Your task to perform on an android device: check the backup settings in the google photos Image 0: 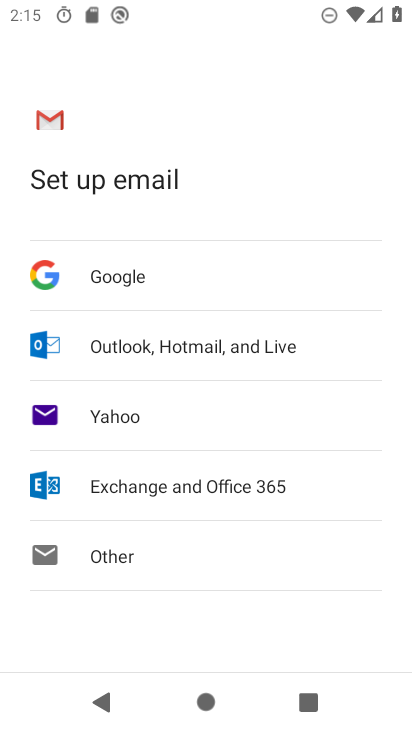
Step 0: press home button
Your task to perform on an android device: check the backup settings in the google photos Image 1: 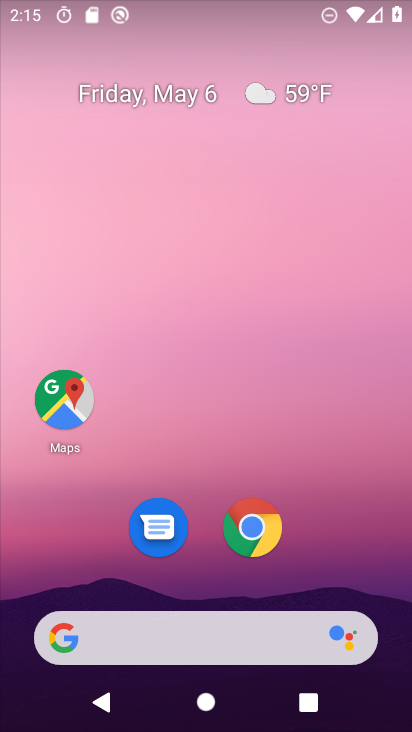
Step 1: drag from (312, 546) to (86, 131)
Your task to perform on an android device: check the backup settings in the google photos Image 2: 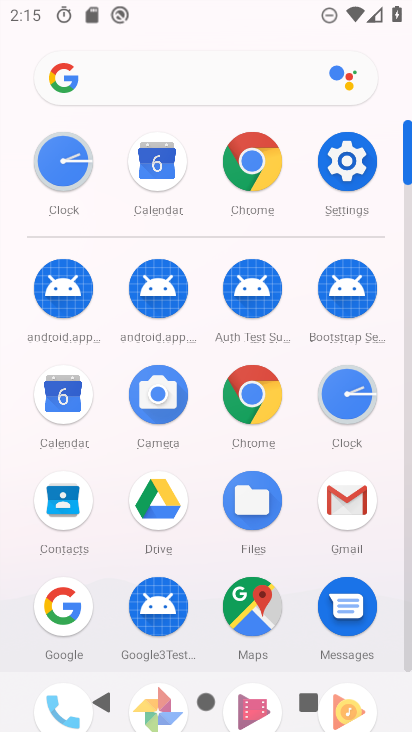
Step 2: drag from (210, 635) to (193, 272)
Your task to perform on an android device: check the backup settings in the google photos Image 3: 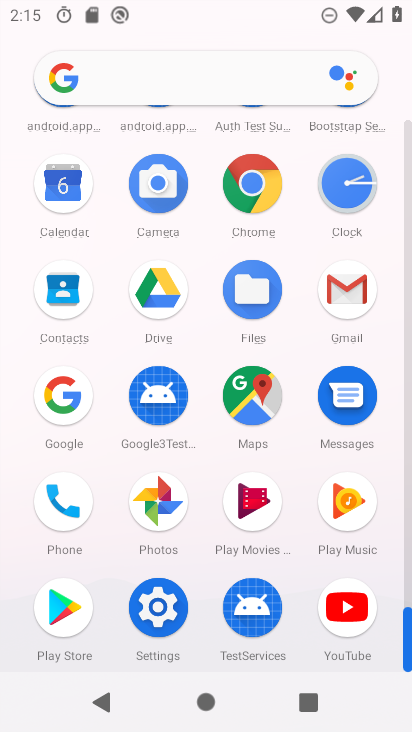
Step 3: click (157, 528)
Your task to perform on an android device: check the backup settings in the google photos Image 4: 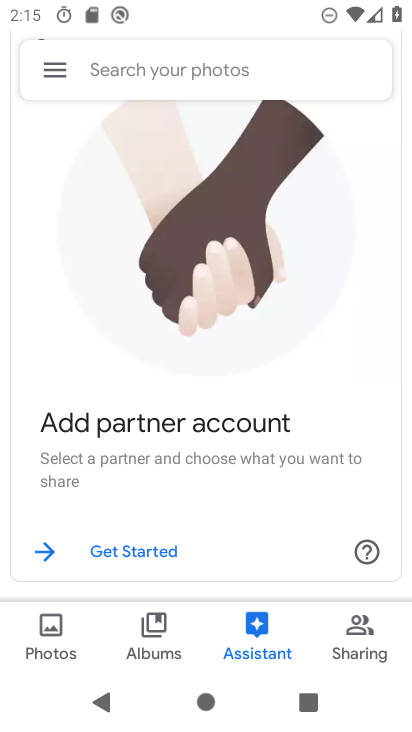
Step 4: click (49, 71)
Your task to perform on an android device: check the backup settings in the google photos Image 5: 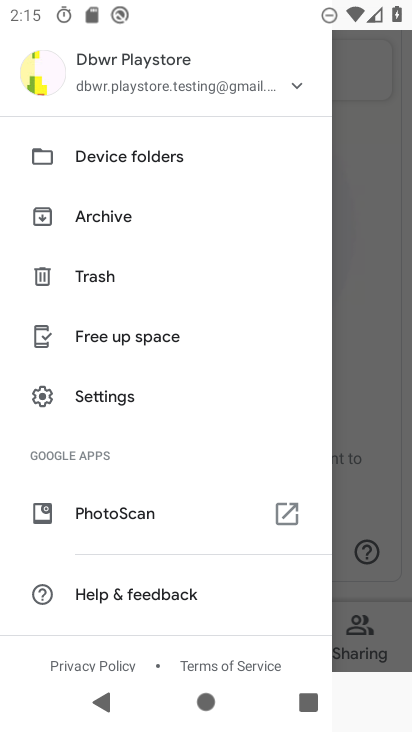
Step 5: click (92, 402)
Your task to perform on an android device: check the backup settings in the google photos Image 6: 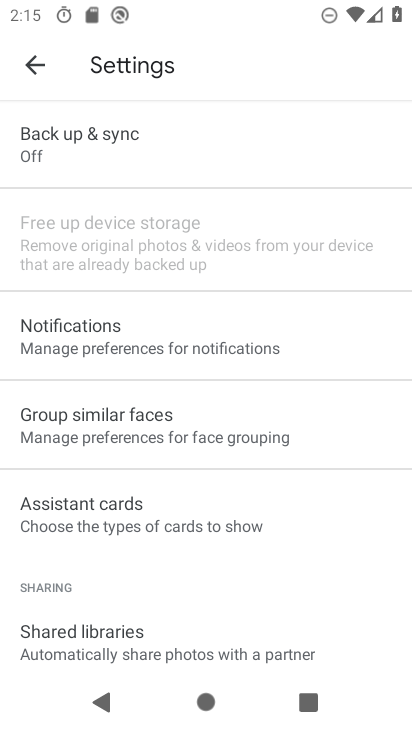
Step 6: click (86, 158)
Your task to perform on an android device: check the backup settings in the google photos Image 7: 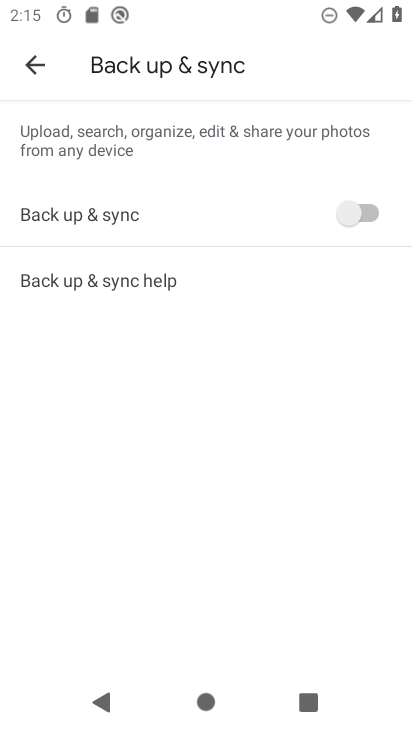
Step 7: click (364, 218)
Your task to perform on an android device: check the backup settings in the google photos Image 8: 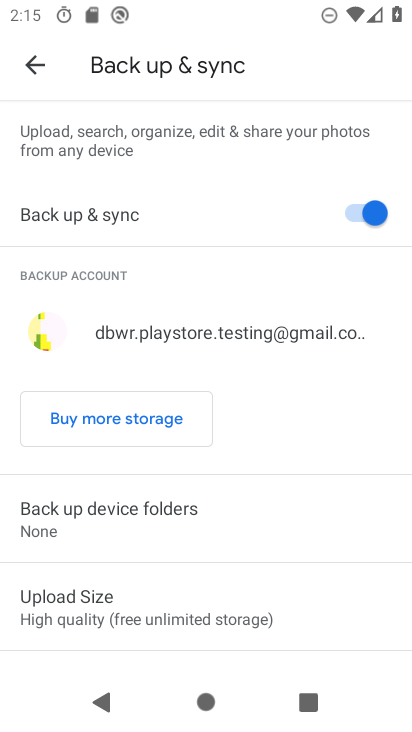
Step 8: drag from (166, 587) to (199, 258)
Your task to perform on an android device: check the backup settings in the google photos Image 9: 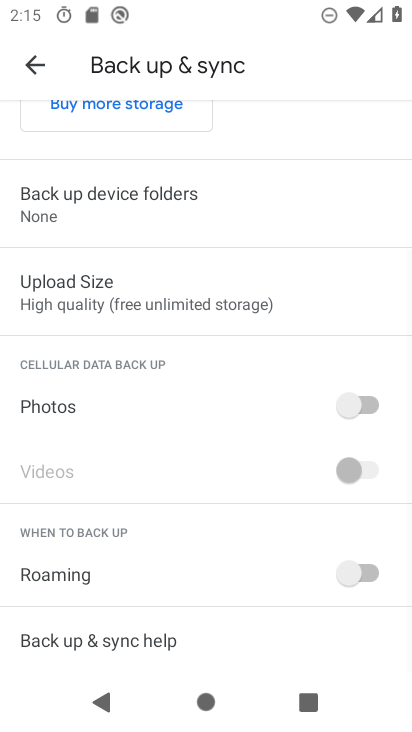
Step 9: click (145, 598)
Your task to perform on an android device: check the backup settings in the google photos Image 10: 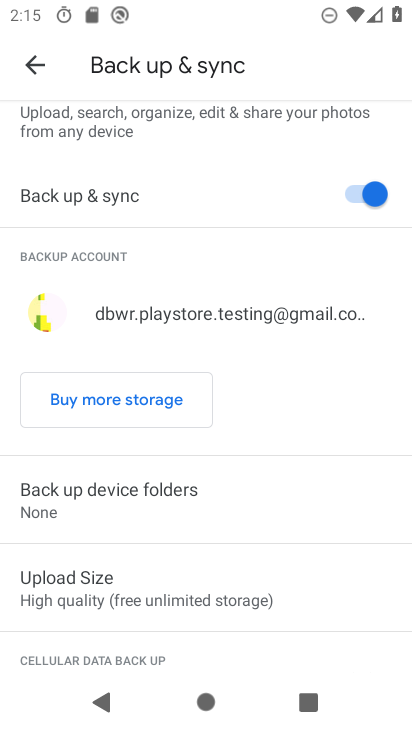
Step 10: click (116, 501)
Your task to perform on an android device: check the backup settings in the google photos Image 11: 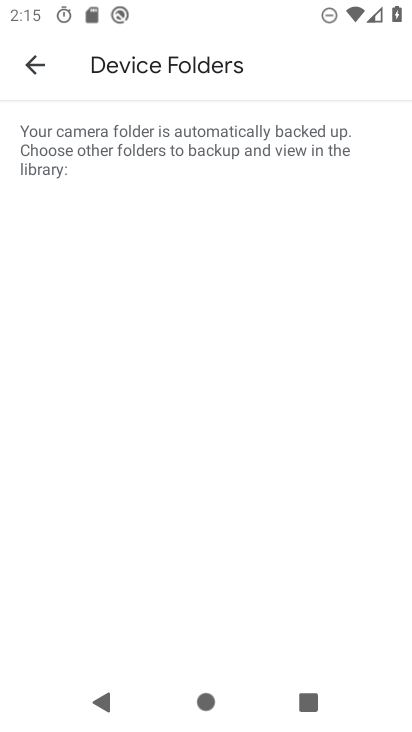
Step 11: click (34, 61)
Your task to perform on an android device: check the backup settings in the google photos Image 12: 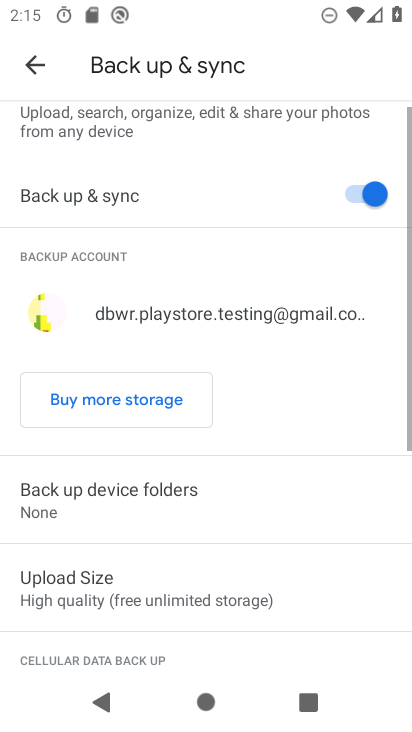
Step 12: drag from (126, 603) to (153, 348)
Your task to perform on an android device: check the backup settings in the google photos Image 13: 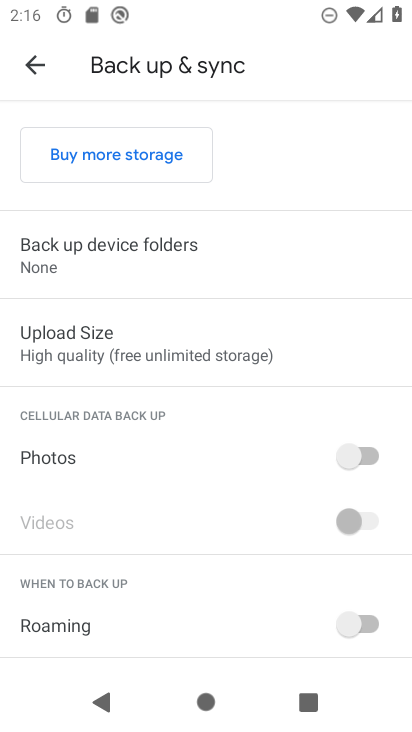
Step 13: drag from (248, 591) to (249, 459)
Your task to perform on an android device: check the backup settings in the google photos Image 14: 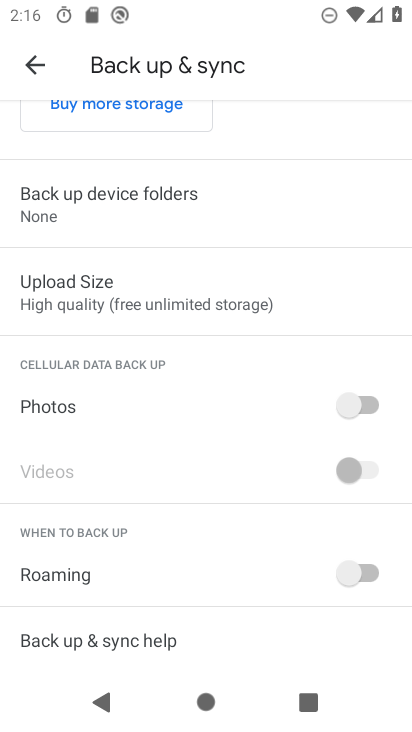
Step 14: click (359, 580)
Your task to perform on an android device: check the backup settings in the google photos Image 15: 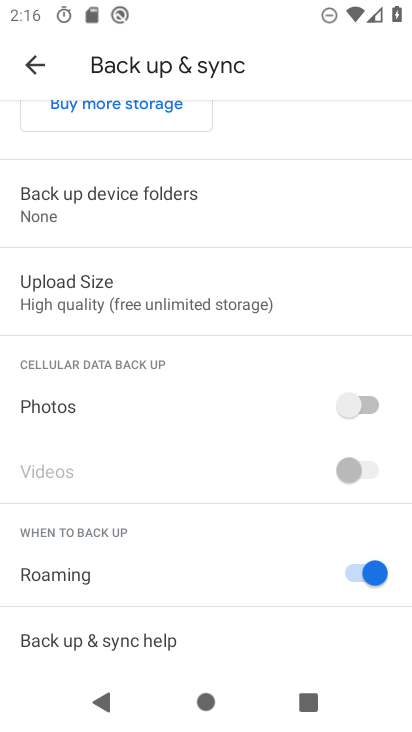
Step 15: task complete